Your task to perform on an android device: Toggle the flashlight Image 0: 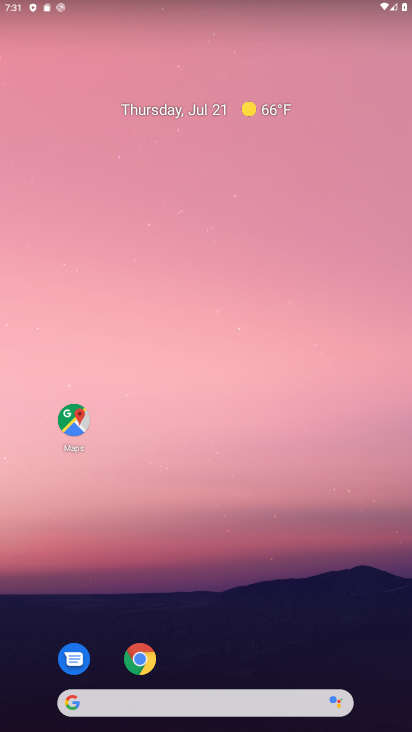
Step 0: drag from (207, 580) to (213, 3)
Your task to perform on an android device: Toggle the flashlight Image 1: 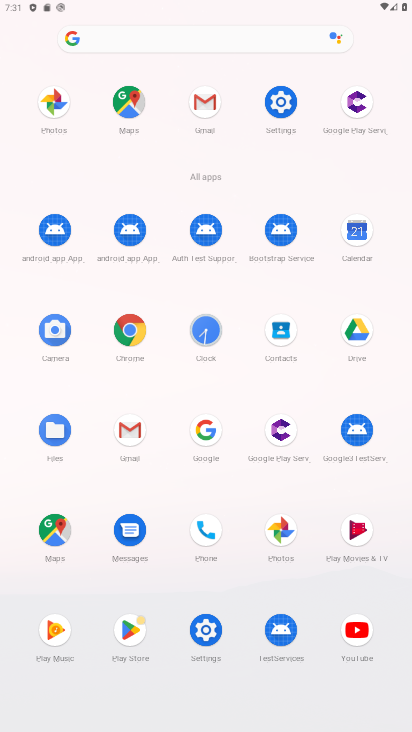
Step 1: click (288, 96)
Your task to perform on an android device: Toggle the flashlight Image 2: 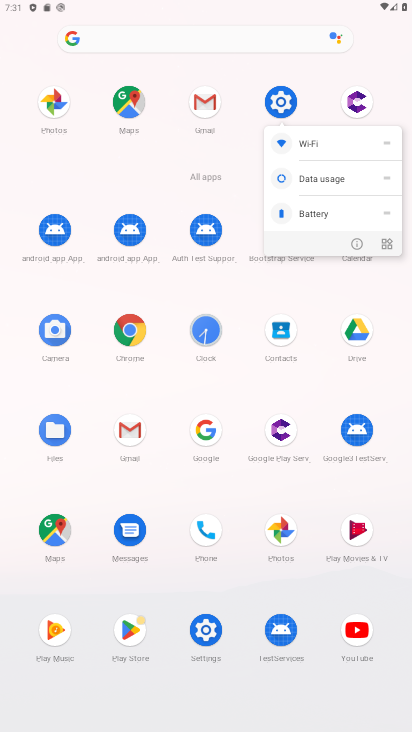
Step 2: click (354, 241)
Your task to perform on an android device: Toggle the flashlight Image 3: 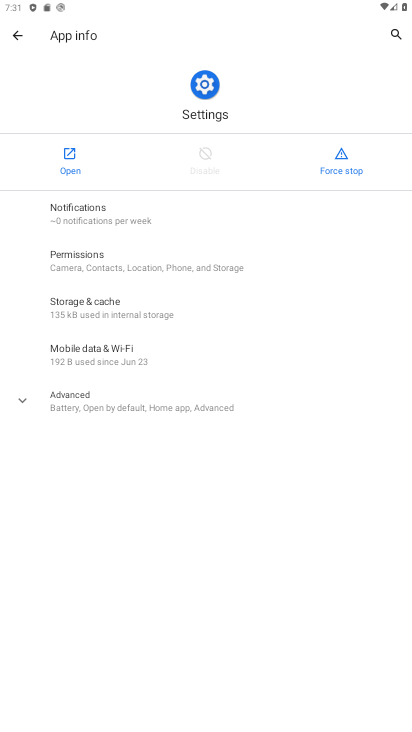
Step 3: click (64, 159)
Your task to perform on an android device: Toggle the flashlight Image 4: 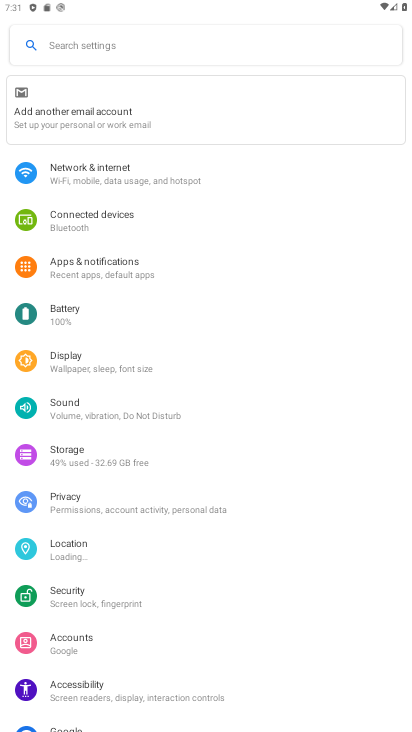
Step 4: drag from (172, 188) to (246, 660)
Your task to perform on an android device: Toggle the flashlight Image 5: 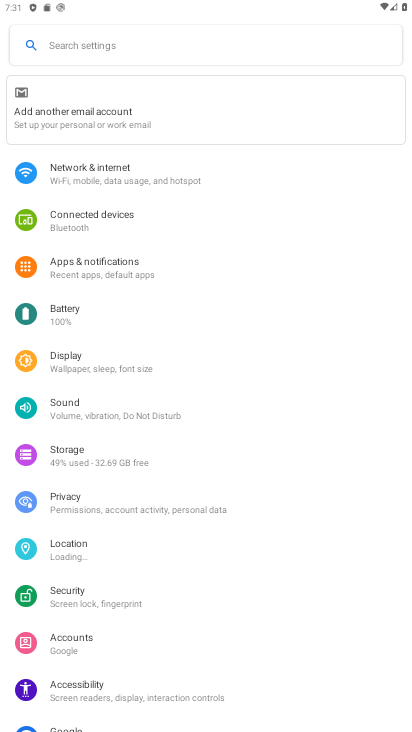
Step 5: click (81, 48)
Your task to perform on an android device: Toggle the flashlight Image 6: 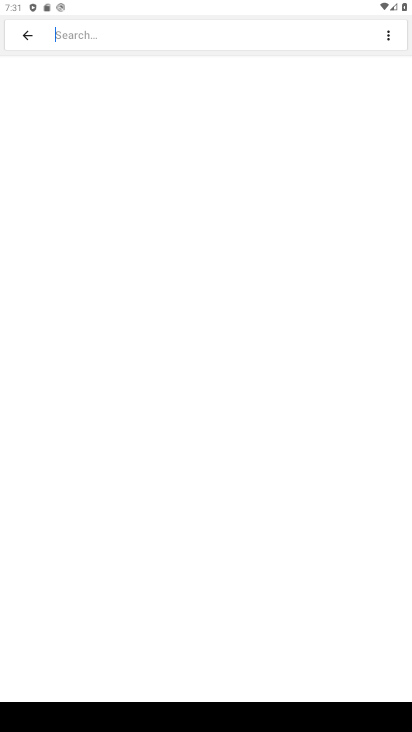
Step 6: type "flashlight"
Your task to perform on an android device: Toggle the flashlight Image 7: 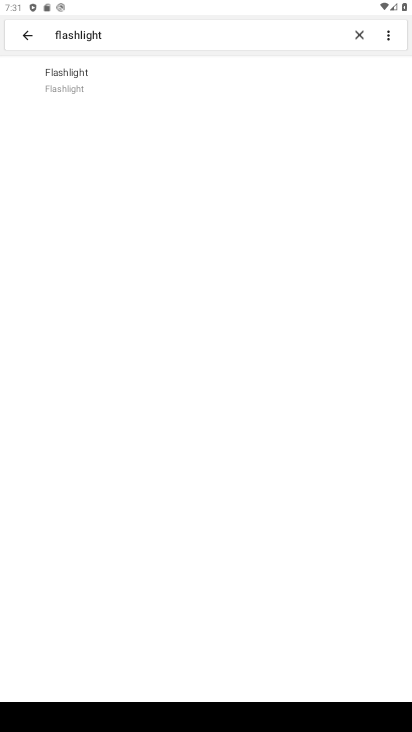
Step 7: click (71, 59)
Your task to perform on an android device: Toggle the flashlight Image 8: 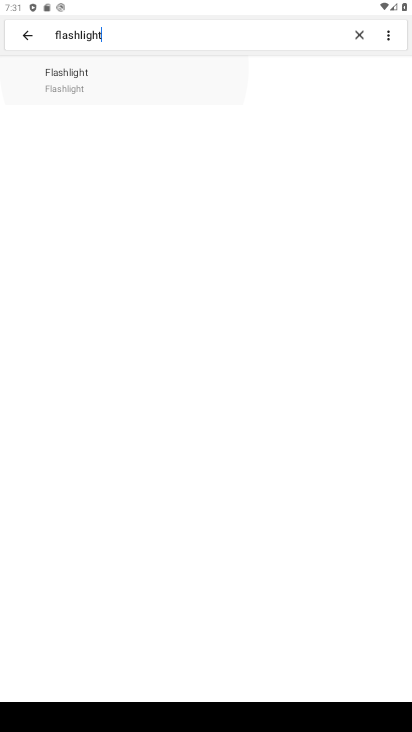
Step 8: click (92, 76)
Your task to perform on an android device: Toggle the flashlight Image 9: 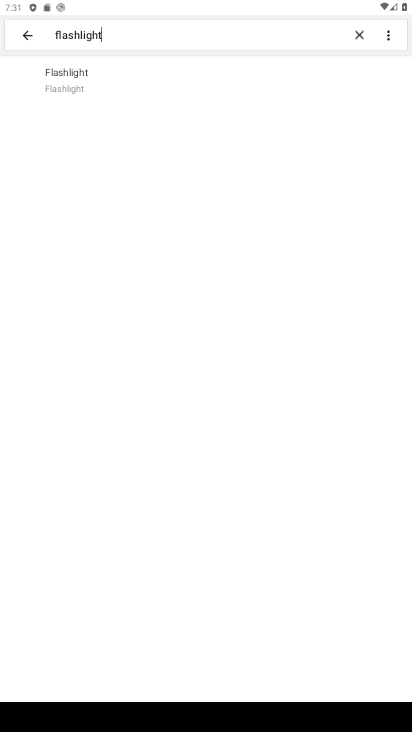
Step 9: click (86, 66)
Your task to perform on an android device: Toggle the flashlight Image 10: 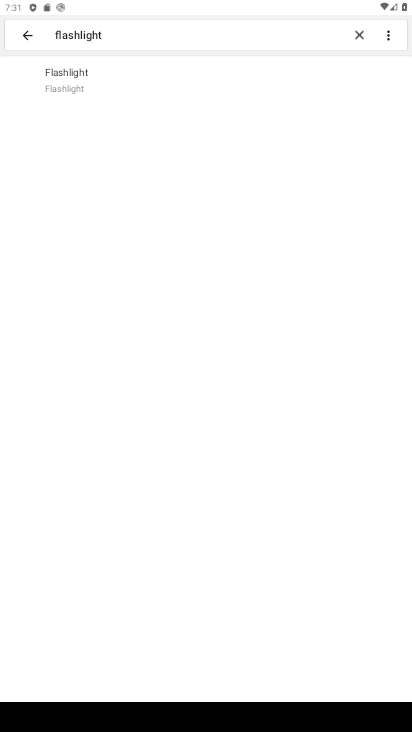
Step 10: click (86, 66)
Your task to perform on an android device: Toggle the flashlight Image 11: 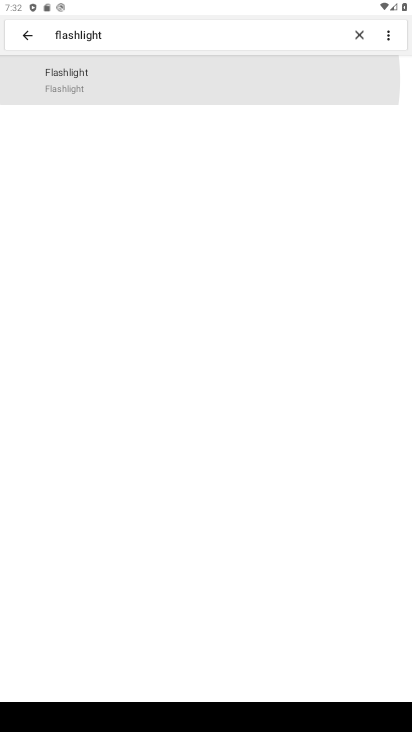
Step 11: click (86, 66)
Your task to perform on an android device: Toggle the flashlight Image 12: 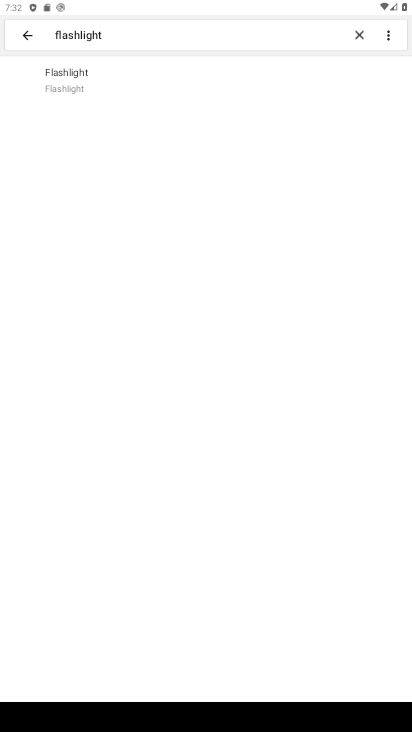
Step 12: click (85, 69)
Your task to perform on an android device: Toggle the flashlight Image 13: 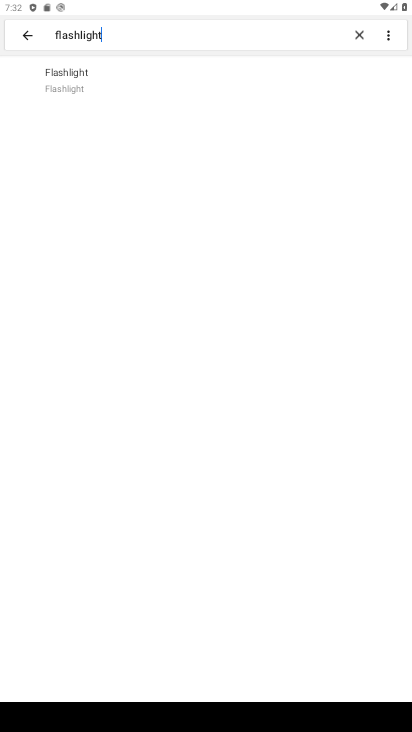
Step 13: click (64, 76)
Your task to perform on an android device: Toggle the flashlight Image 14: 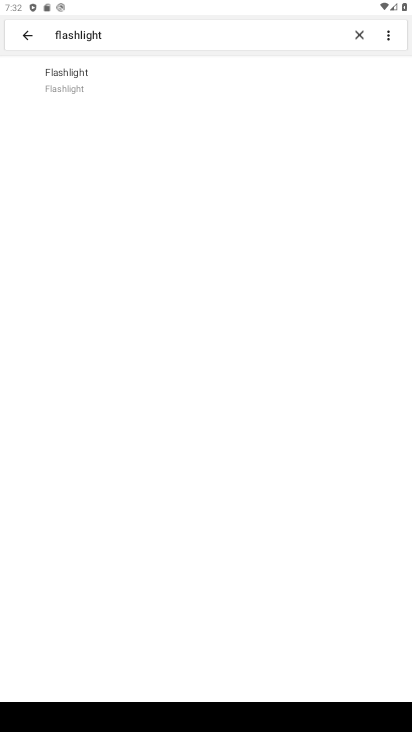
Step 14: click (65, 72)
Your task to perform on an android device: Toggle the flashlight Image 15: 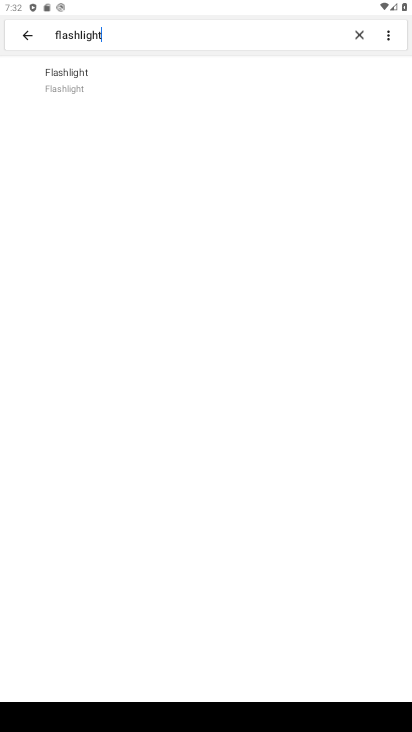
Step 15: task complete